Your task to perform on an android device: Search for Italian restaurants on Maps Image 0: 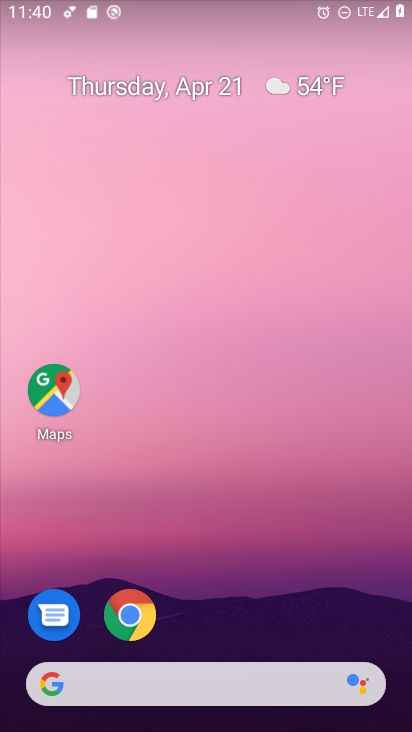
Step 0: drag from (203, 636) to (271, 73)
Your task to perform on an android device: Search for Italian restaurants on Maps Image 1: 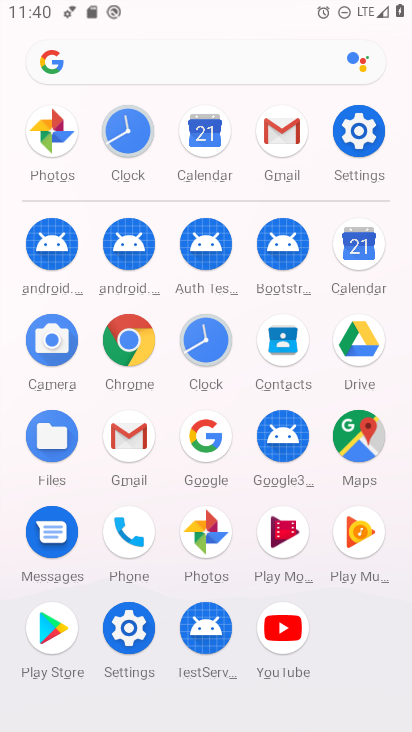
Step 1: click (356, 438)
Your task to perform on an android device: Search for Italian restaurants on Maps Image 2: 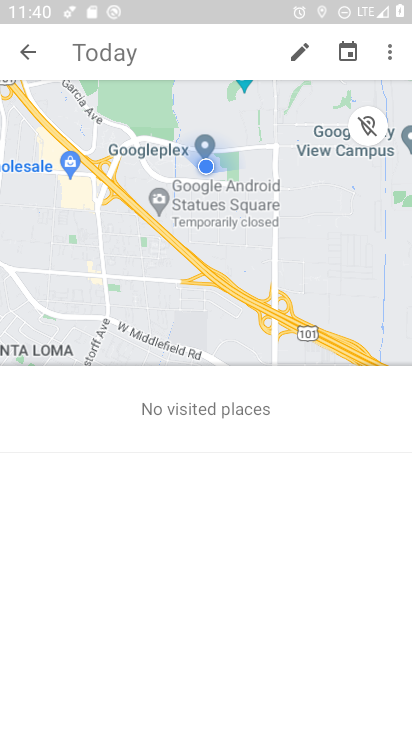
Step 2: click (14, 62)
Your task to perform on an android device: Search for Italian restaurants on Maps Image 3: 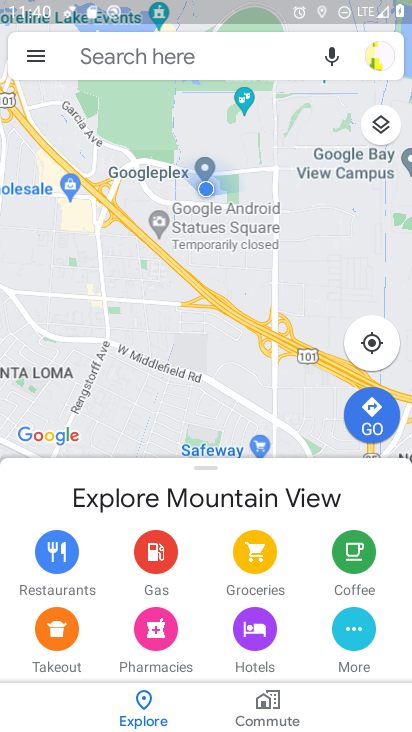
Step 3: click (140, 50)
Your task to perform on an android device: Search for Italian restaurants on Maps Image 4: 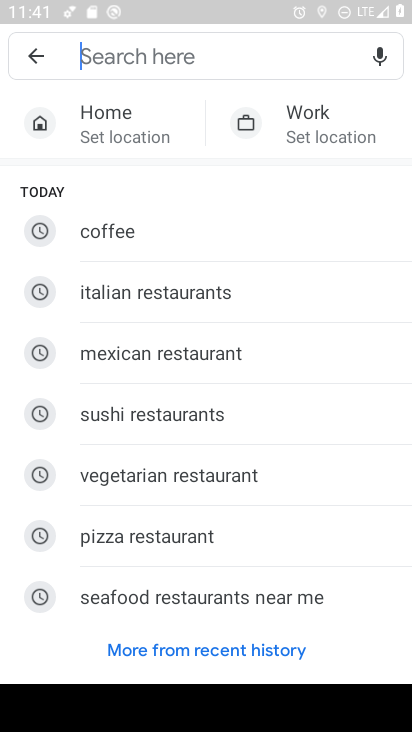
Step 4: type "italian restaurants"
Your task to perform on an android device: Search for Italian restaurants on Maps Image 5: 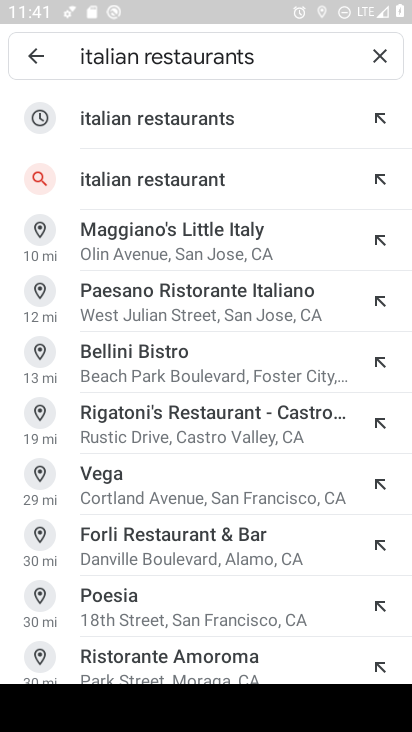
Step 5: click (132, 125)
Your task to perform on an android device: Search for Italian restaurants on Maps Image 6: 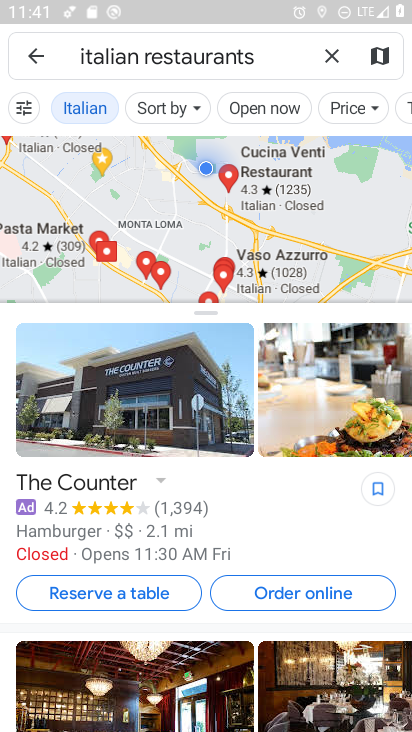
Step 6: task complete